Your task to perform on an android device: Open the calendar and show me this week's events? Image 0: 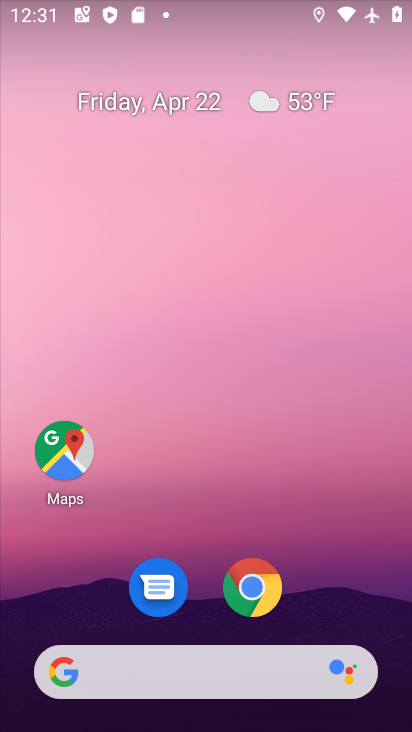
Step 0: drag from (116, 673) to (289, 10)
Your task to perform on an android device: Open the calendar and show me this week's events? Image 1: 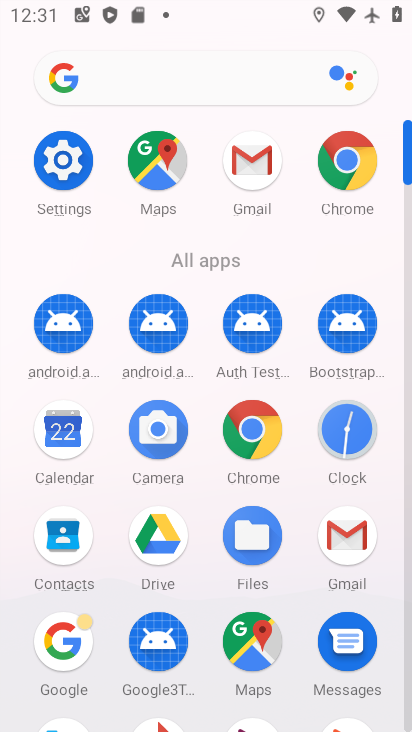
Step 1: click (67, 436)
Your task to perform on an android device: Open the calendar and show me this week's events? Image 2: 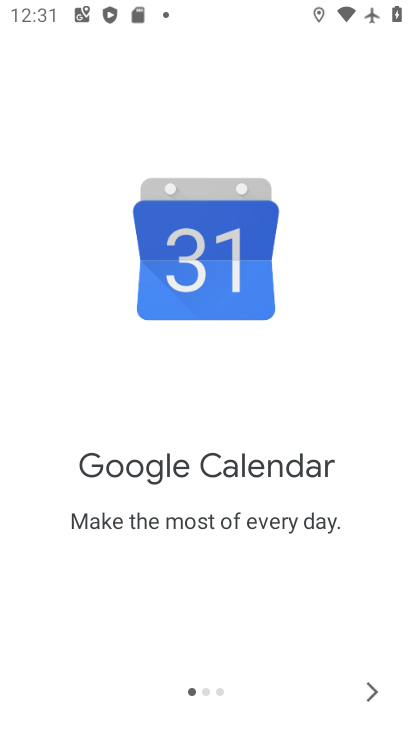
Step 2: click (365, 689)
Your task to perform on an android device: Open the calendar and show me this week's events? Image 3: 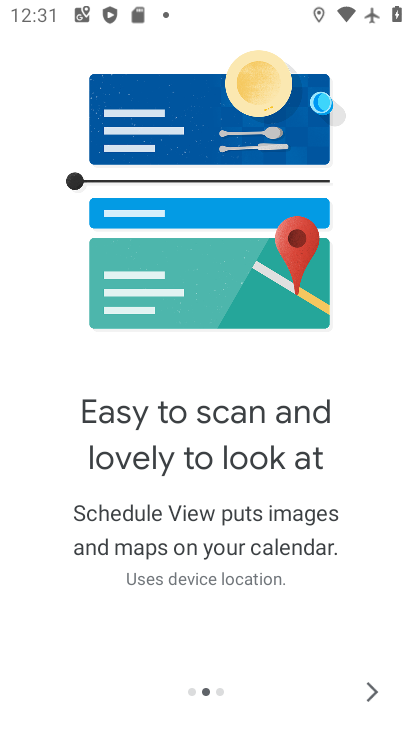
Step 3: click (365, 689)
Your task to perform on an android device: Open the calendar and show me this week's events? Image 4: 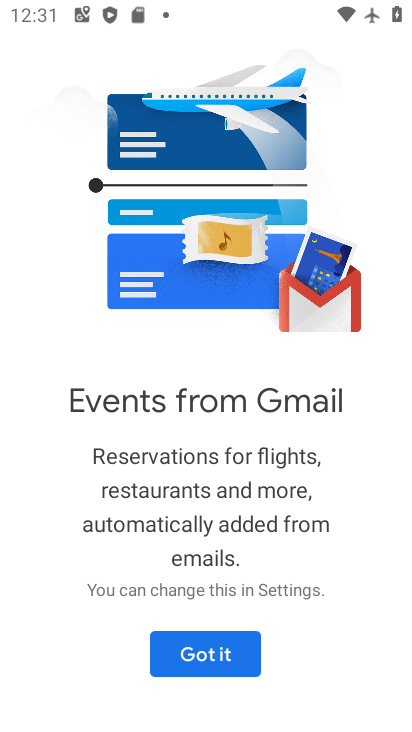
Step 4: click (209, 656)
Your task to perform on an android device: Open the calendar and show me this week's events? Image 5: 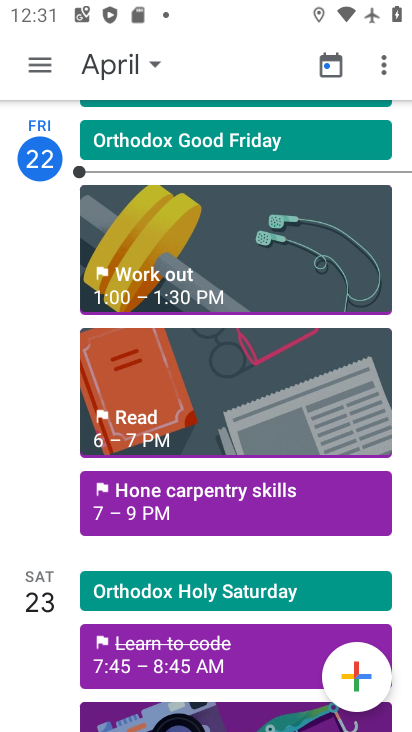
Step 5: click (115, 62)
Your task to perform on an android device: Open the calendar and show me this week's events? Image 6: 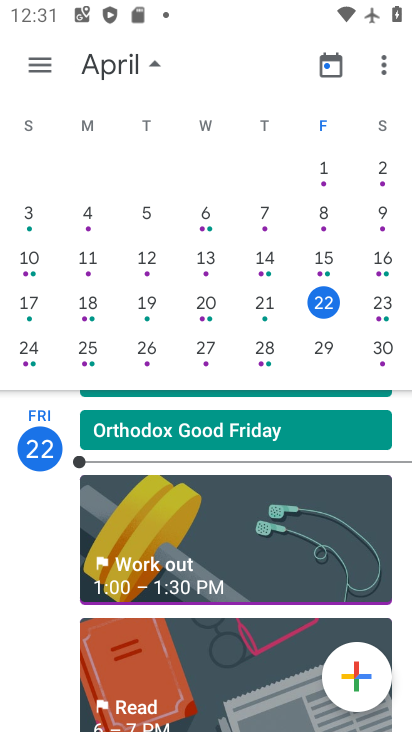
Step 6: click (46, 64)
Your task to perform on an android device: Open the calendar and show me this week's events? Image 7: 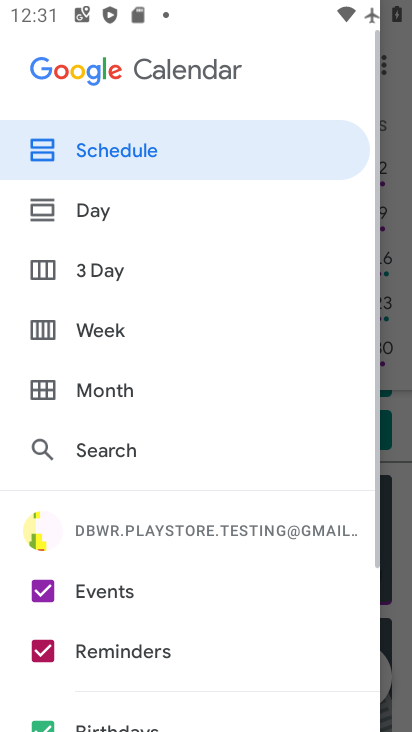
Step 7: click (114, 337)
Your task to perform on an android device: Open the calendar and show me this week's events? Image 8: 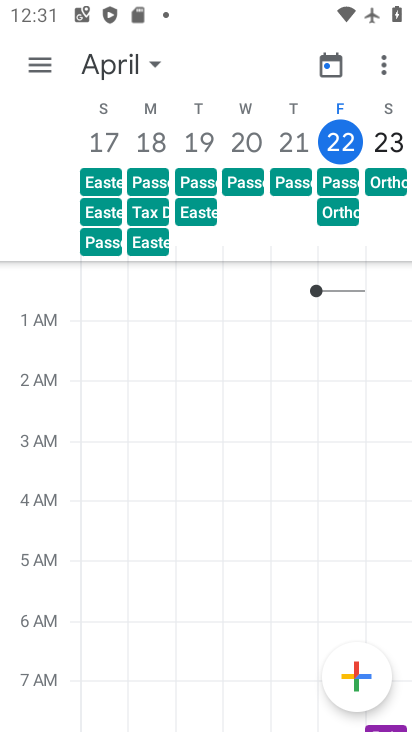
Step 8: click (44, 65)
Your task to perform on an android device: Open the calendar and show me this week's events? Image 9: 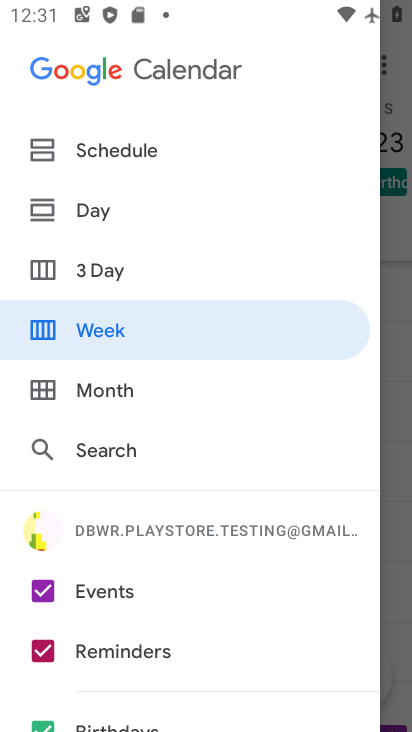
Step 9: click (97, 144)
Your task to perform on an android device: Open the calendar and show me this week's events? Image 10: 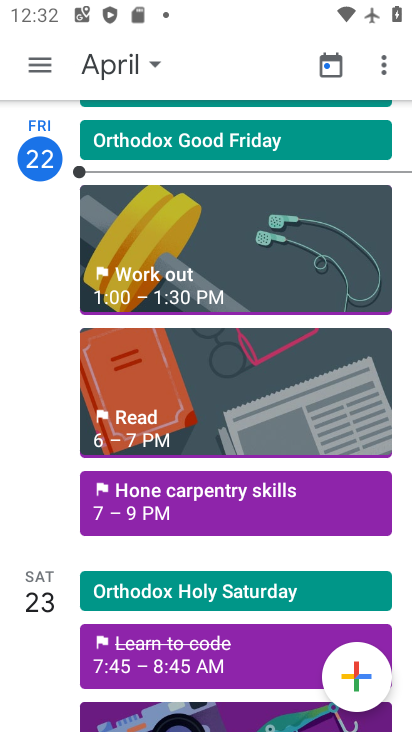
Step 10: click (175, 504)
Your task to perform on an android device: Open the calendar and show me this week's events? Image 11: 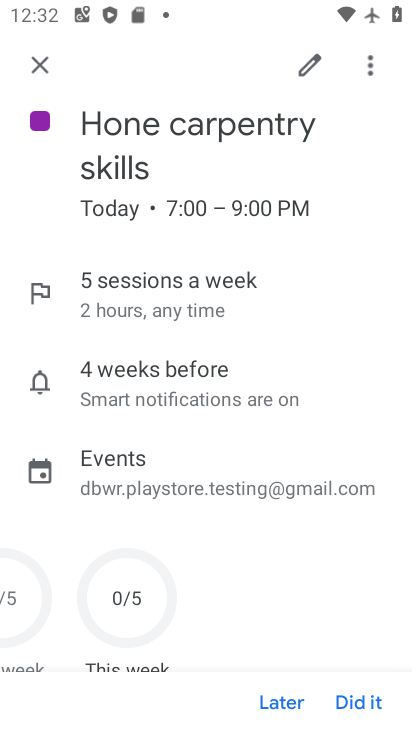
Step 11: task complete